Your task to perform on an android device: Check the weather Image 0: 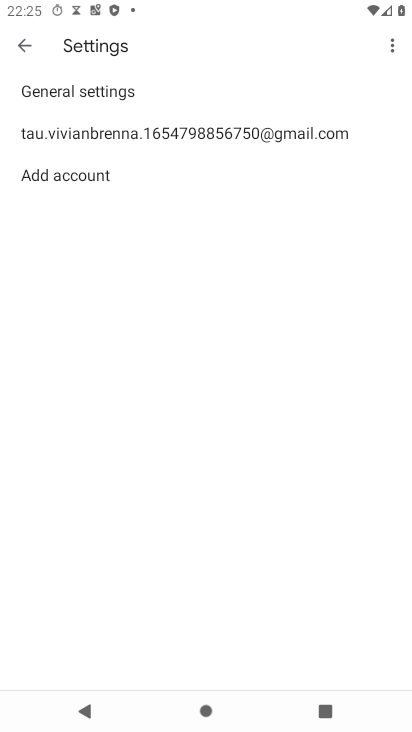
Step 0: press home button
Your task to perform on an android device: Check the weather Image 1: 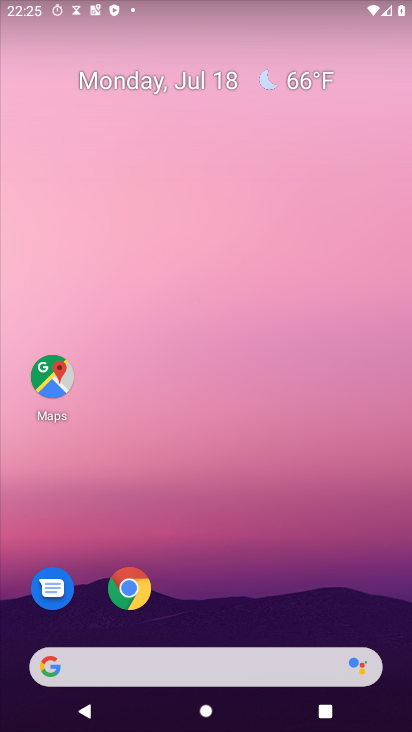
Step 1: click (177, 670)
Your task to perform on an android device: Check the weather Image 2: 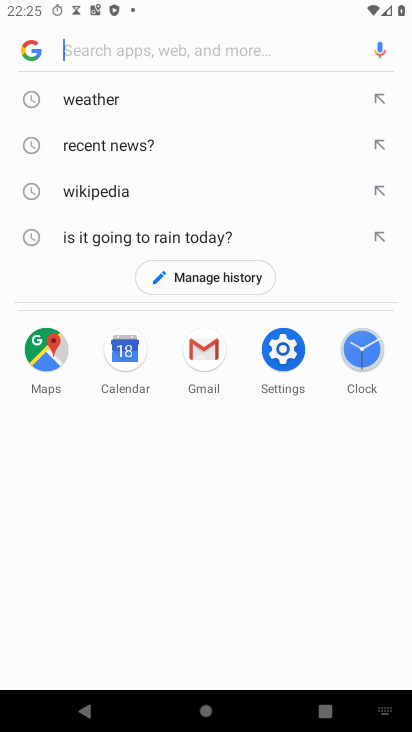
Step 2: click (120, 103)
Your task to perform on an android device: Check the weather Image 3: 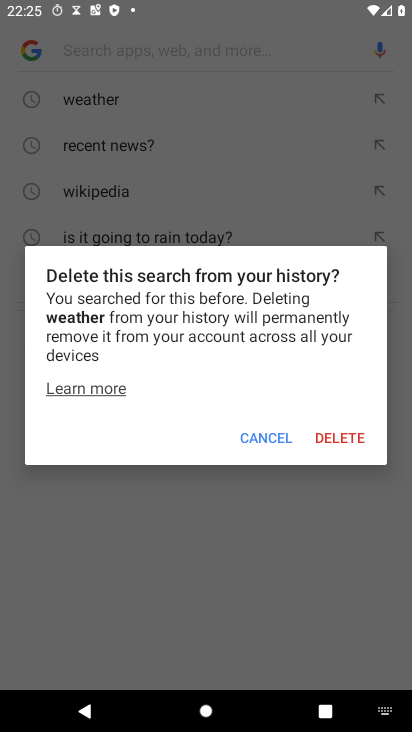
Step 3: click (259, 439)
Your task to perform on an android device: Check the weather Image 4: 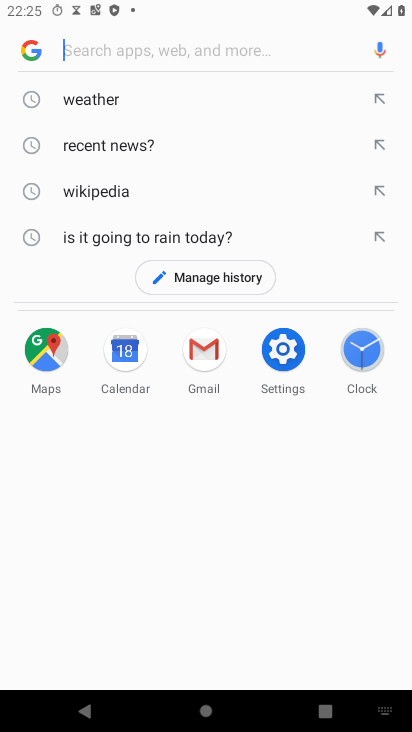
Step 4: click (91, 104)
Your task to perform on an android device: Check the weather Image 5: 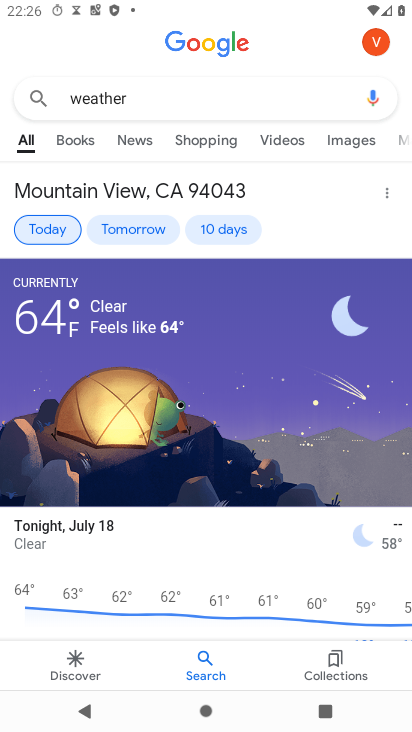
Step 5: task complete